Your task to perform on an android device: Open the web browser Image 0: 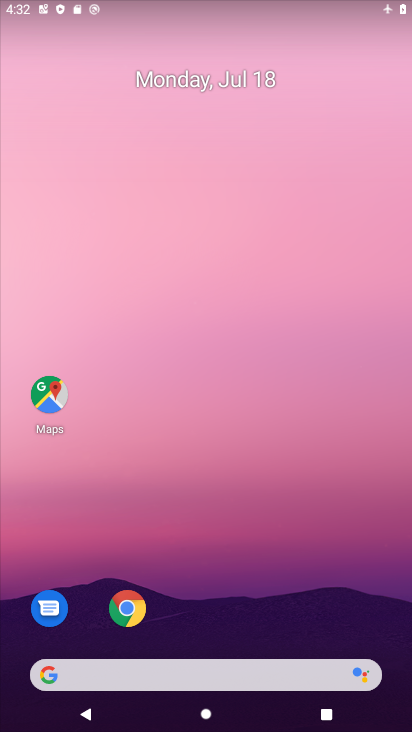
Step 0: drag from (287, 598) to (274, 80)
Your task to perform on an android device: Open the web browser Image 1: 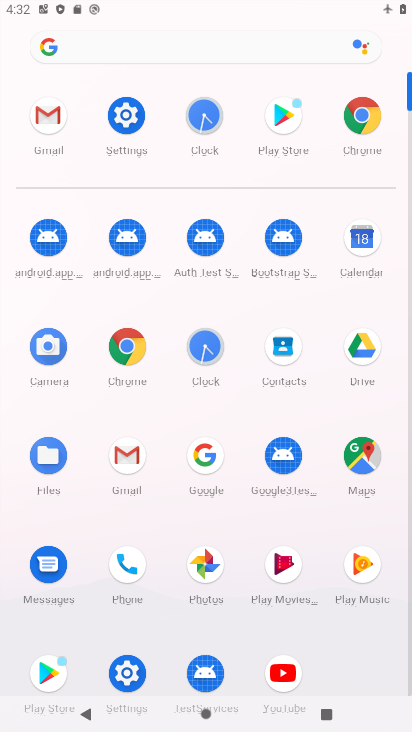
Step 1: click (361, 117)
Your task to perform on an android device: Open the web browser Image 2: 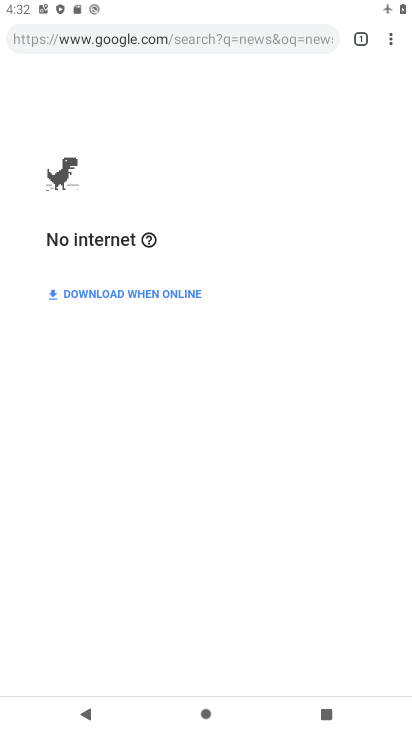
Step 2: task complete